Your task to perform on an android device: turn off notifications in google photos Image 0: 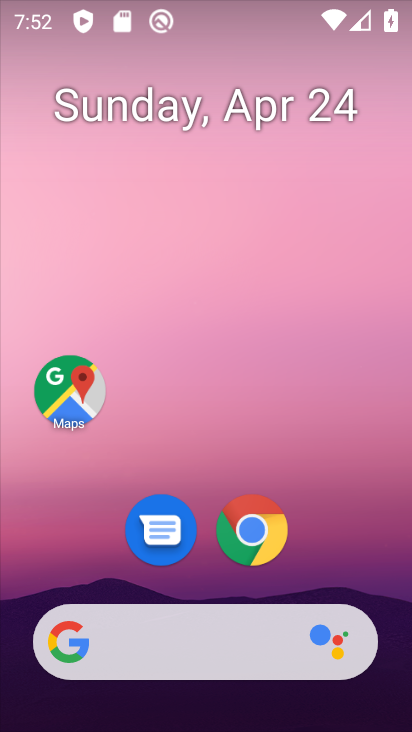
Step 0: drag from (211, 574) to (202, 102)
Your task to perform on an android device: turn off notifications in google photos Image 1: 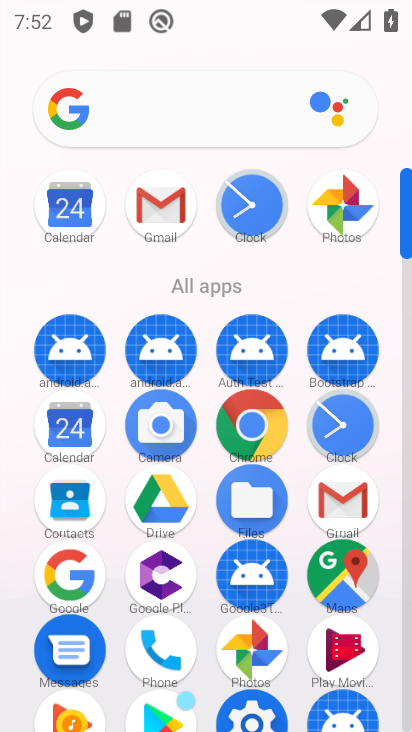
Step 1: click (259, 723)
Your task to perform on an android device: turn off notifications in google photos Image 2: 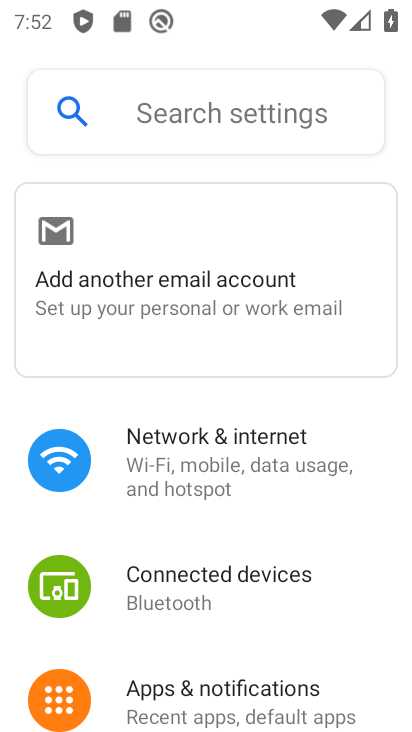
Step 2: click (212, 715)
Your task to perform on an android device: turn off notifications in google photos Image 3: 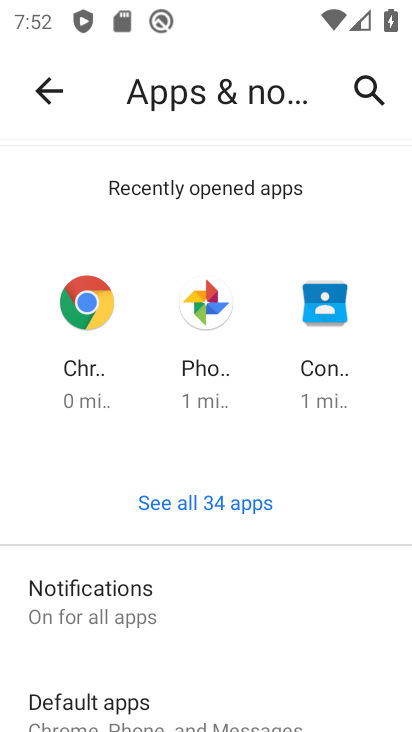
Step 3: click (216, 298)
Your task to perform on an android device: turn off notifications in google photos Image 4: 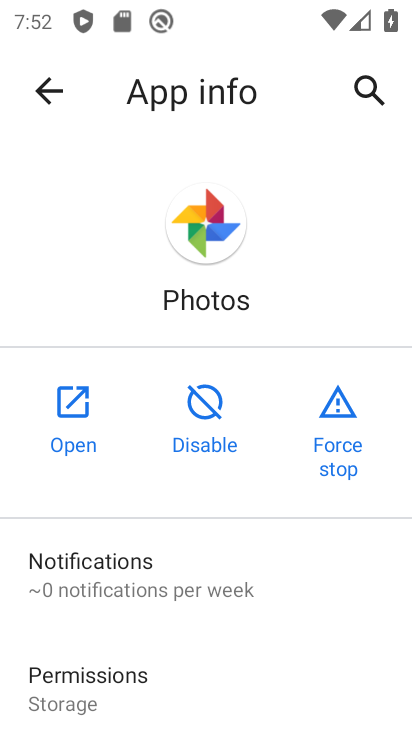
Step 4: click (122, 555)
Your task to perform on an android device: turn off notifications in google photos Image 5: 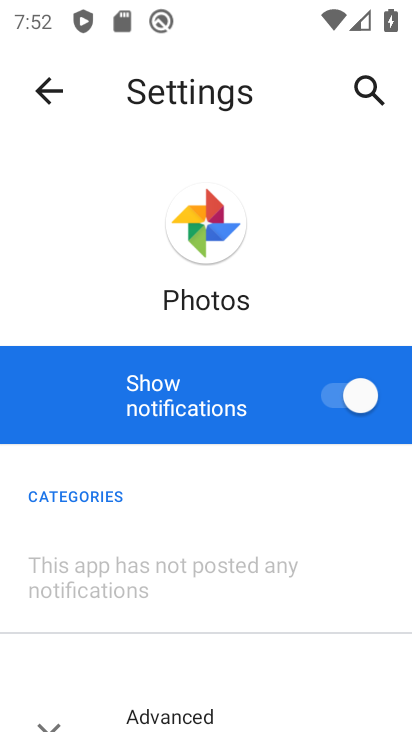
Step 5: click (329, 401)
Your task to perform on an android device: turn off notifications in google photos Image 6: 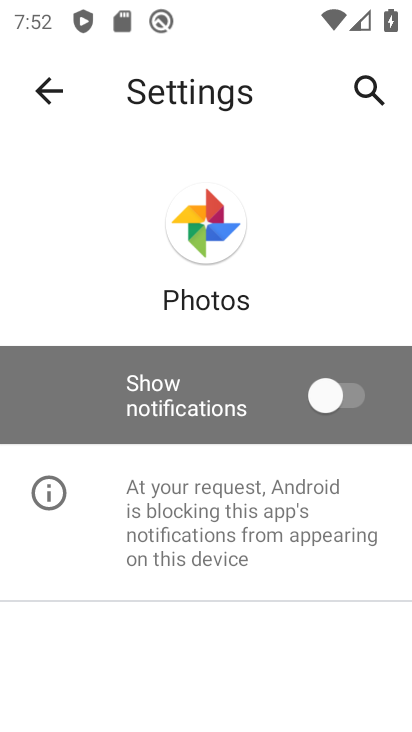
Step 6: task complete